Your task to perform on an android device: check out phone information Image 0: 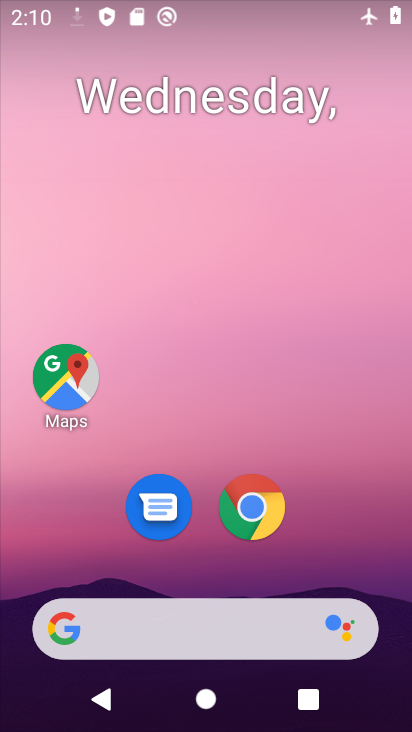
Step 0: drag from (338, 579) to (358, 150)
Your task to perform on an android device: check out phone information Image 1: 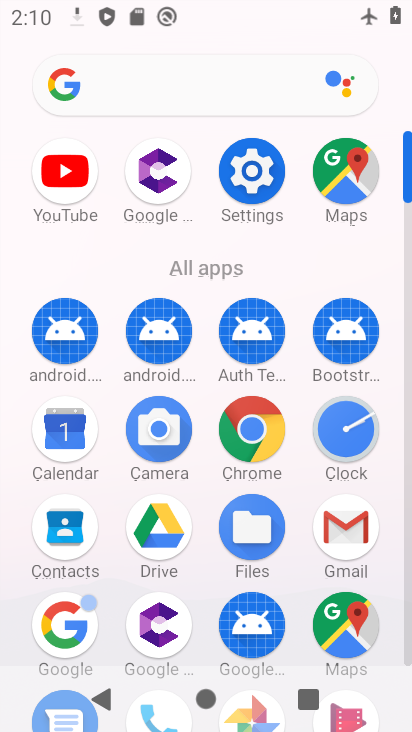
Step 1: click (240, 189)
Your task to perform on an android device: check out phone information Image 2: 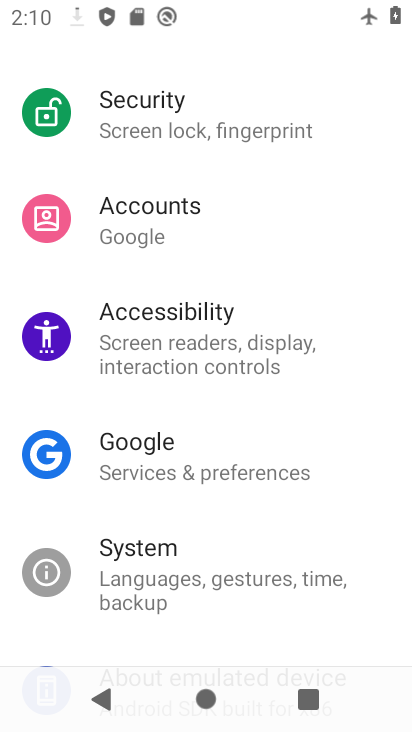
Step 2: drag from (247, 524) to (254, 233)
Your task to perform on an android device: check out phone information Image 3: 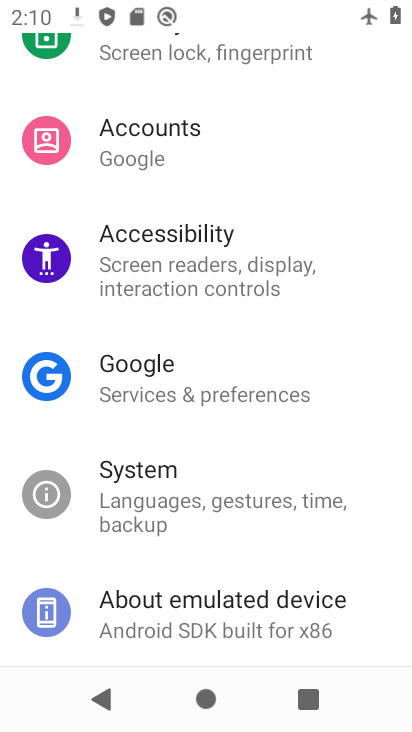
Step 3: drag from (250, 550) to (292, 127)
Your task to perform on an android device: check out phone information Image 4: 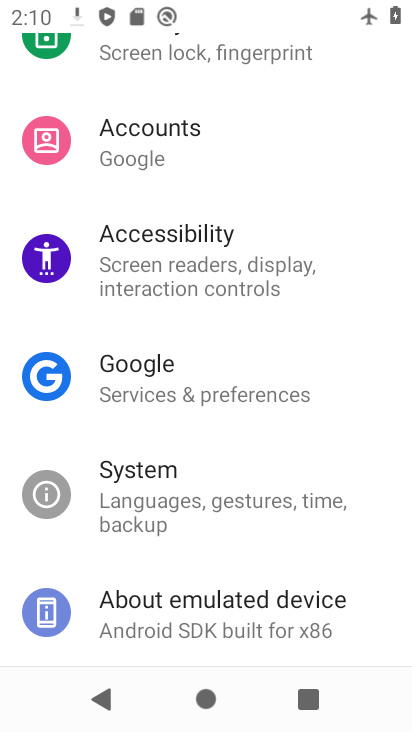
Step 4: click (345, 634)
Your task to perform on an android device: check out phone information Image 5: 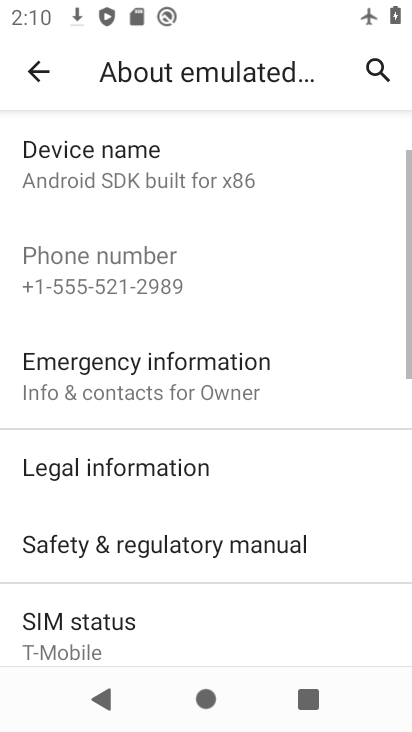
Step 5: task complete